Your task to perform on an android device: turn off sleep mode Image 0: 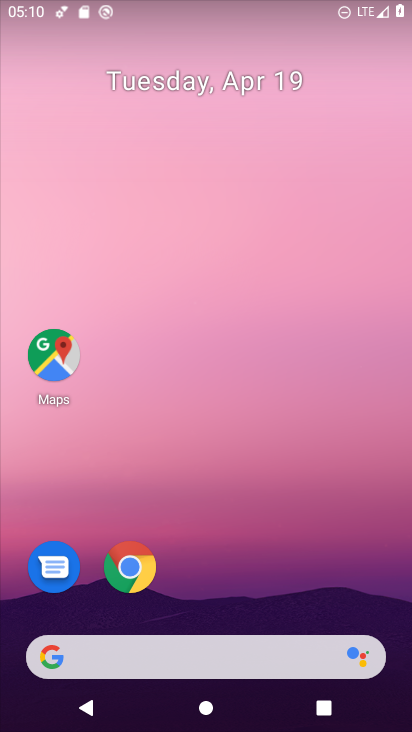
Step 0: drag from (261, 655) to (235, 118)
Your task to perform on an android device: turn off sleep mode Image 1: 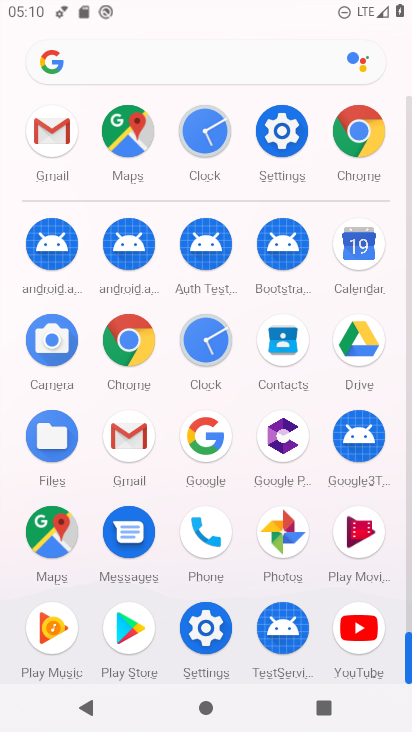
Step 1: click (212, 620)
Your task to perform on an android device: turn off sleep mode Image 2: 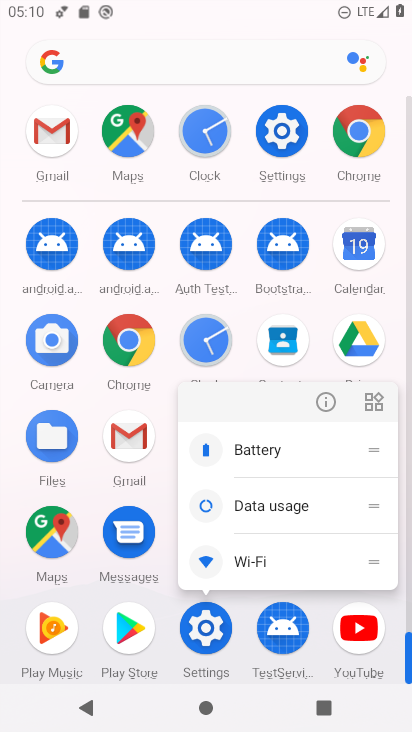
Step 2: click (215, 642)
Your task to perform on an android device: turn off sleep mode Image 3: 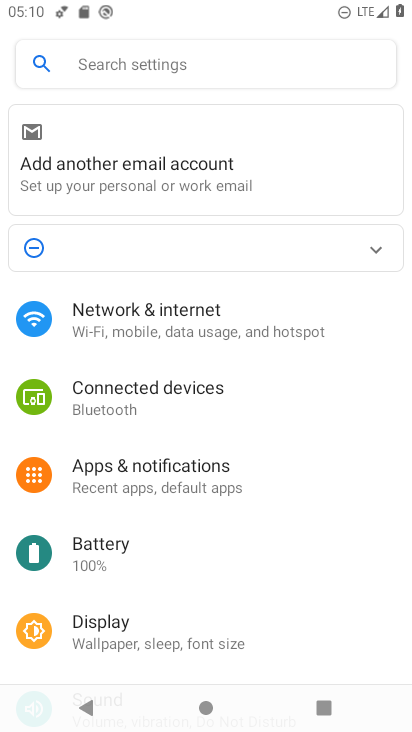
Step 3: task complete